Your task to perform on an android device: Add usb-c to the cart on amazon.com, then select checkout. Image 0: 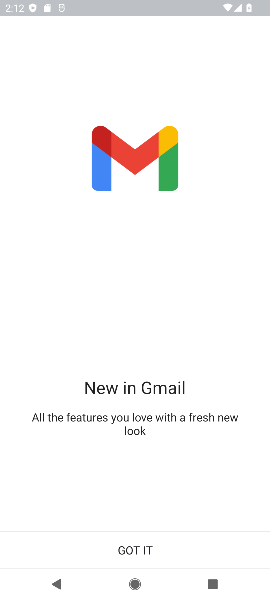
Step 0: press home button
Your task to perform on an android device: Add usb-c to the cart on amazon.com, then select checkout. Image 1: 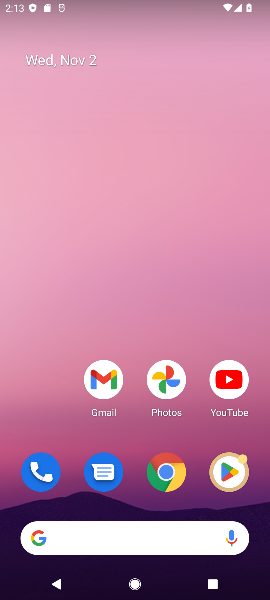
Step 1: click (170, 474)
Your task to perform on an android device: Add usb-c to the cart on amazon.com, then select checkout. Image 2: 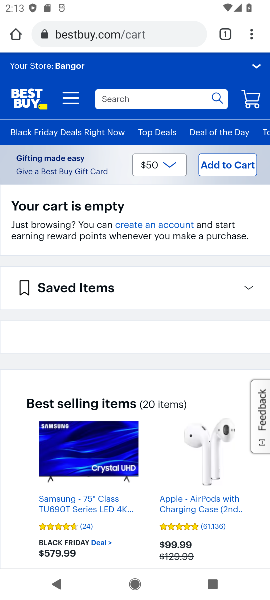
Step 2: click (147, 39)
Your task to perform on an android device: Add usb-c to the cart on amazon.com, then select checkout. Image 3: 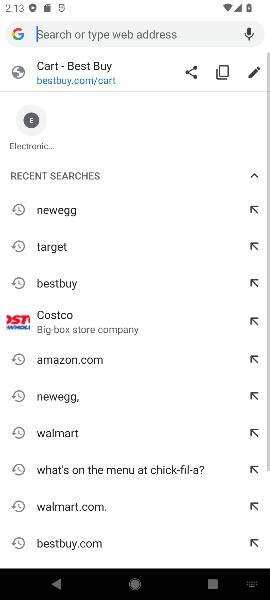
Step 3: type "amazon.com"
Your task to perform on an android device: Add usb-c to the cart on amazon.com, then select checkout. Image 4: 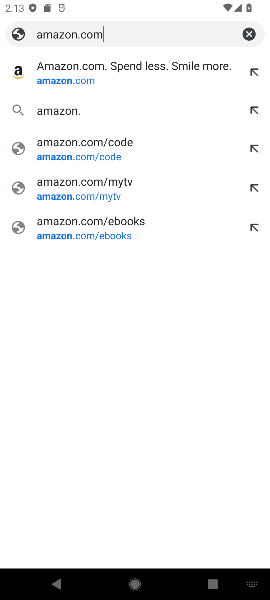
Step 4: type ""
Your task to perform on an android device: Add usb-c to the cart on amazon.com, then select checkout. Image 5: 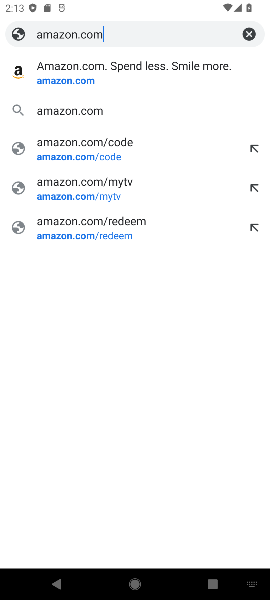
Step 5: click (89, 64)
Your task to perform on an android device: Add usb-c to the cart on amazon.com, then select checkout. Image 6: 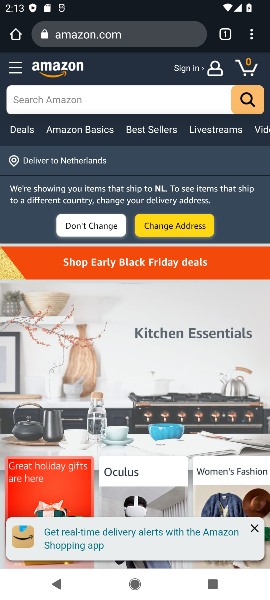
Step 6: click (86, 106)
Your task to perform on an android device: Add usb-c to the cart on amazon.com, then select checkout. Image 7: 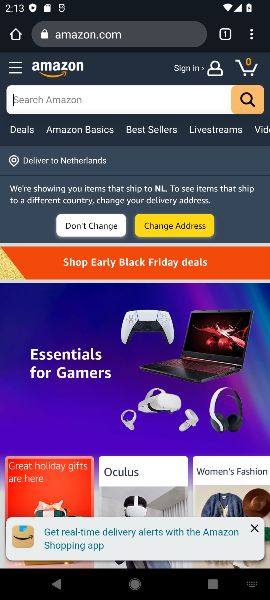
Step 7: type "usb-c"
Your task to perform on an android device: Add usb-c to the cart on amazon.com, then select checkout. Image 8: 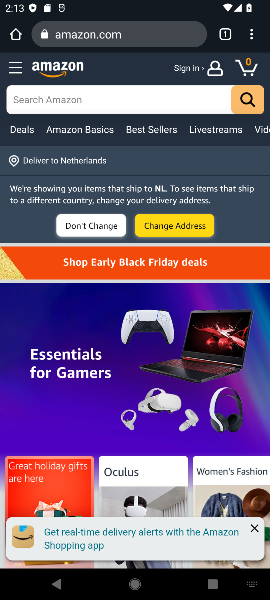
Step 8: type ""
Your task to perform on an android device: Add usb-c to the cart on amazon.com, then select checkout. Image 9: 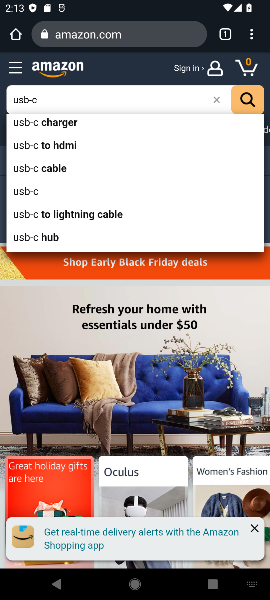
Step 9: click (245, 96)
Your task to perform on an android device: Add usb-c to the cart on amazon.com, then select checkout. Image 10: 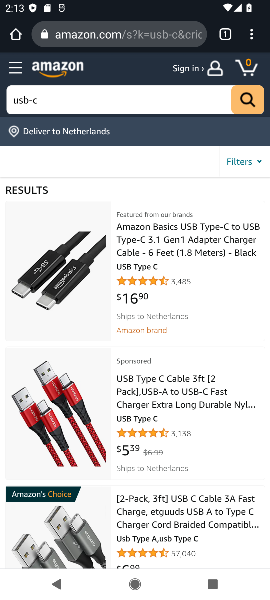
Step 10: click (192, 237)
Your task to perform on an android device: Add usb-c to the cart on amazon.com, then select checkout. Image 11: 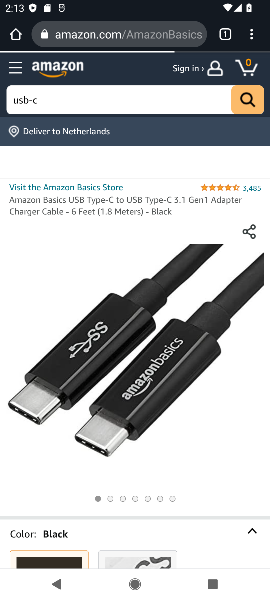
Step 11: drag from (180, 264) to (183, 192)
Your task to perform on an android device: Add usb-c to the cart on amazon.com, then select checkout. Image 12: 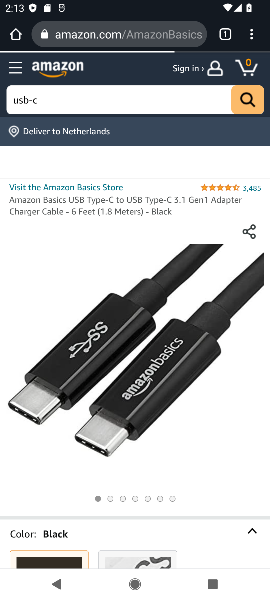
Step 12: drag from (158, 518) to (166, 301)
Your task to perform on an android device: Add usb-c to the cart on amazon.com, then select checkout. Image 13: 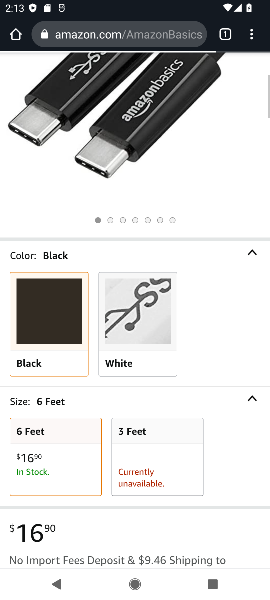
Step 13: drag from (162, 454) to (171, 157)
Your task to perform on an android device: Add usb-c to the cart on amazon.com, then select checkout. Image 14: 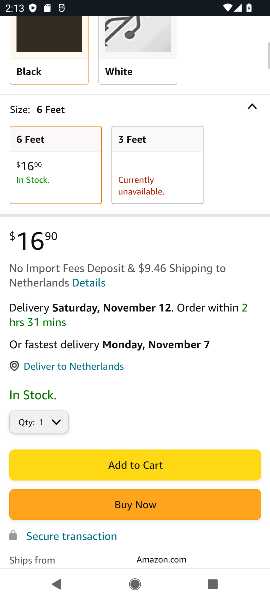
Step 14: click (154, 471)
Your task to perform on an android device: Add usb-c to the cart on amazon.com, then select checkout. Image 15: 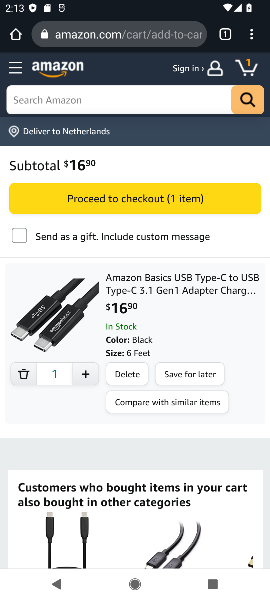
Step 15: click (159, 201)
Your task to perform on an android device: Add usb-c to the cart on amazon.com, then select checkout. Image 16: 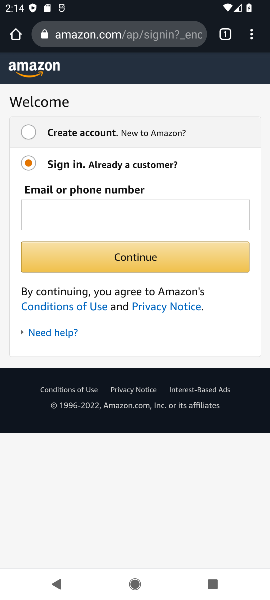
Step 16: task complete